Your task to perform on an android device: toggle show notifications on the lock screen Image 0: 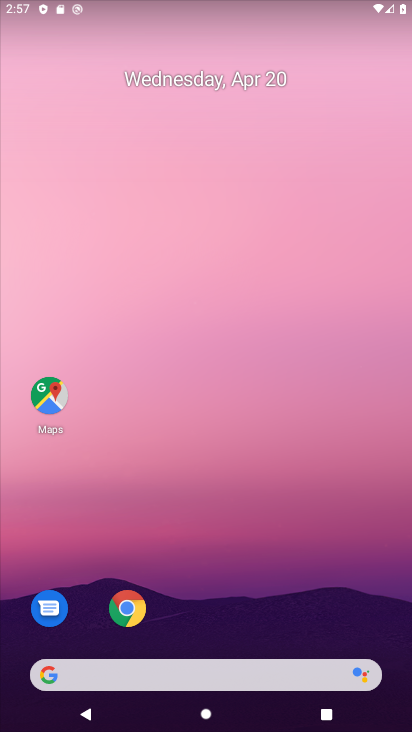
Step 0: drag from (243, 620) to (338, 55)
Your task to perform on an android device: toggle show notifications on the lock screen Image 1: 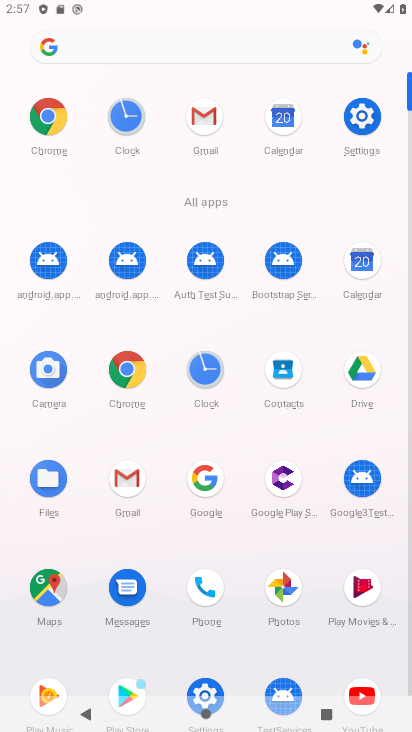
Step 1: click (366, 191)
Your task to perform on an android device: toggle show notifications on the lock screen Image 2: 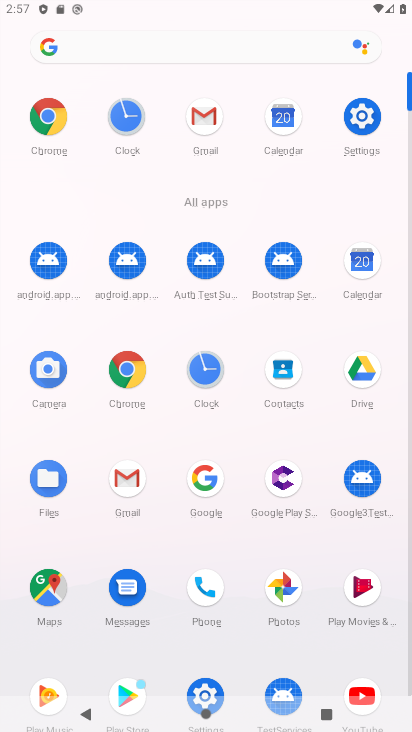
Step 2: click (358, 118)
Your task to perform on an android device: toggle show notifications on the lock screen Image 3: 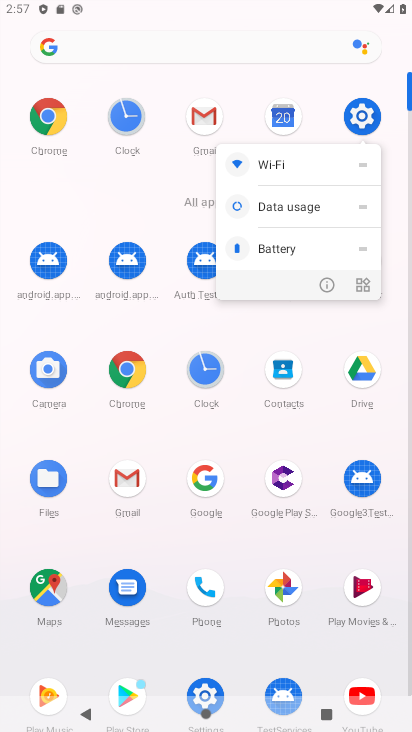
Step 3: click (358, 118)
Your task to perform on an android device: toggle show notifications on the lock screen Image 4: 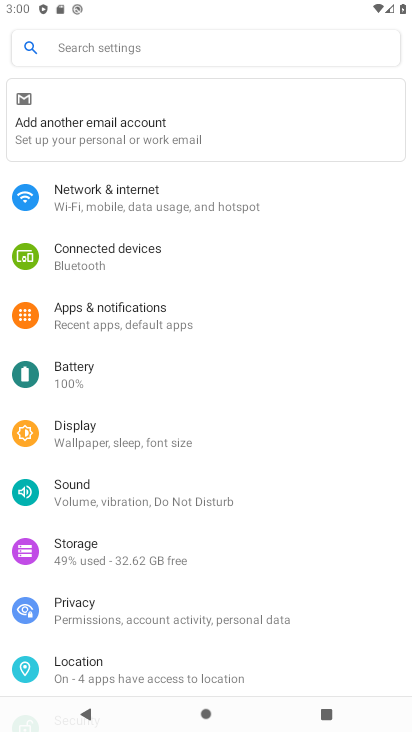
Step 4: click (128, 319)
Your task to perform on an android device: toggle show notifications on the lock screen Image 5: 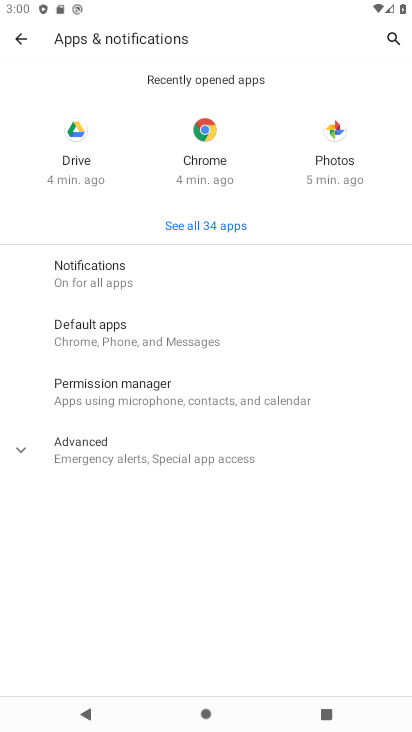
Step 5: click (175, 279)
Your task to perform on an android device: toggle show notifications on the lock screen Image 6: 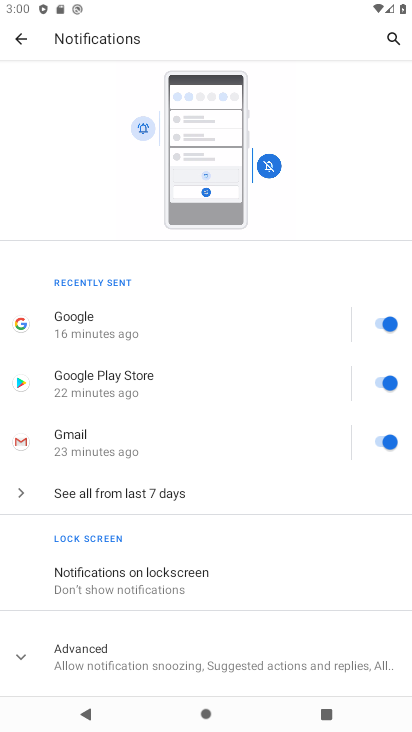
Step 6: click (166, 575)
Your task to perform on an android device: toggle show notifications on the lock screen Image 7: 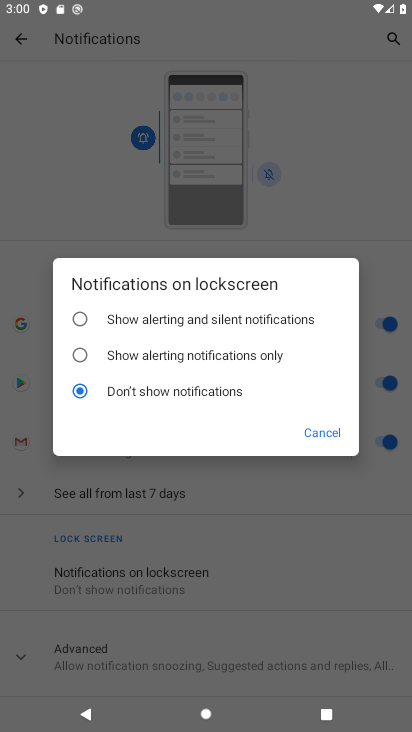
Step 7: click (79, 318)
Your task to perform on an android device: toggle show notifications on the lock screen Image 8: 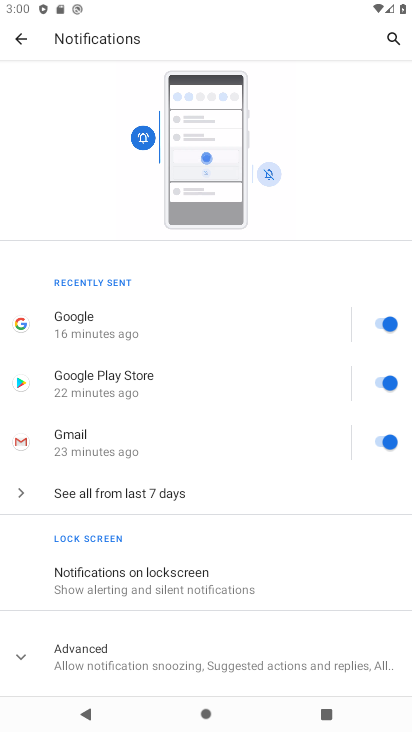
Step 8: task complete